Your task to perform on an android device: turn smart compose on in the gmail app Image 0: 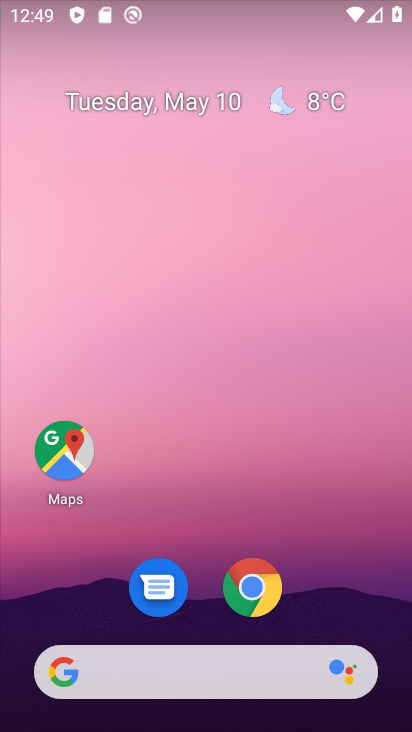
Step 0: drag from (333, 565) to (285, 115)
Your task to perform on an android device: turn smart compose on in the gmail app Image 1: 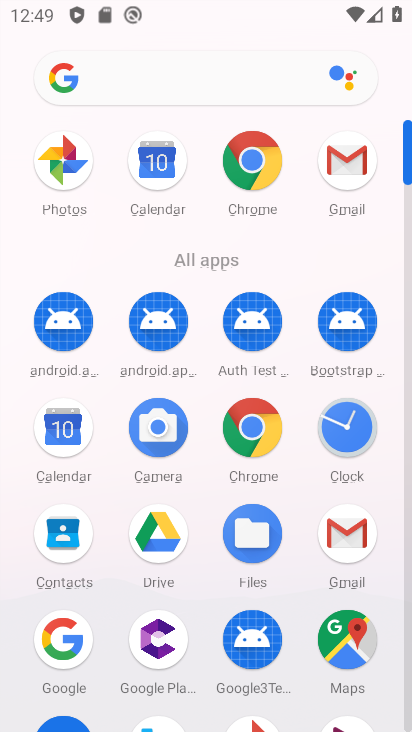
Step 1: click (361, 532)
Your task to perform on an android device: turn smart compose on in the gmail app Image 2: 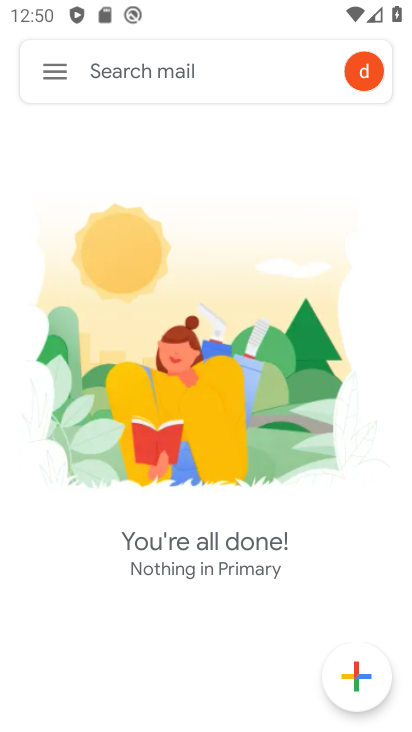
Step 2: click (62, 71)
Your task to perform on an android device: turn smart compose on in the gmail app Image 3: 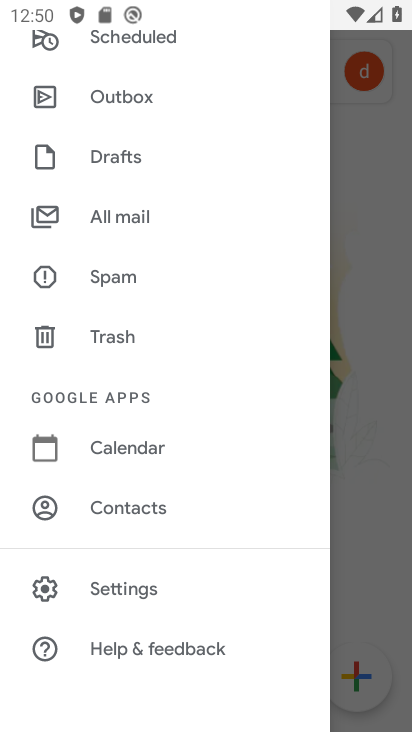
Step 3: click (139, 586)
Your task to perform on an android device: turn smart compose on in the gmail app Image 4: 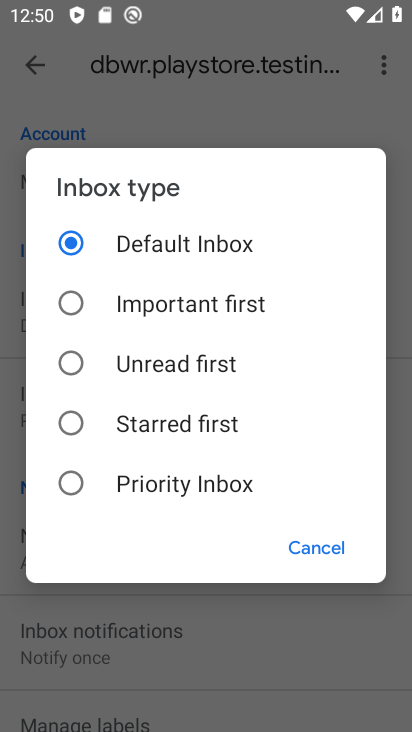
Step 4: click (339, 557)
Your task to perform on an android device: turn smart compose on in the gmail app Image 5: 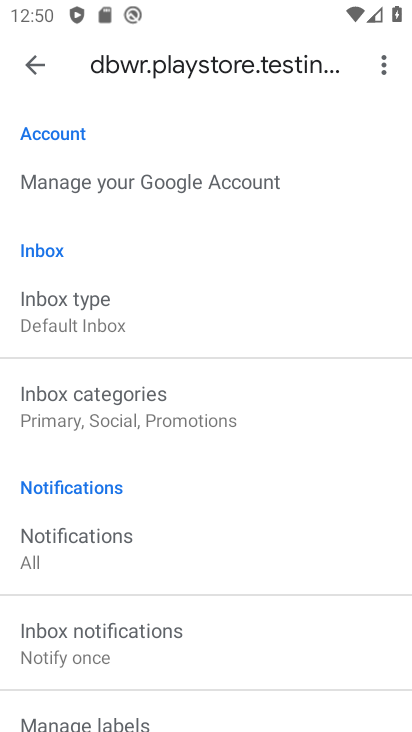
Step 5: task complete